Your task to perform on an android device: Open Google Chrome and open the bookmarks view Image 0: 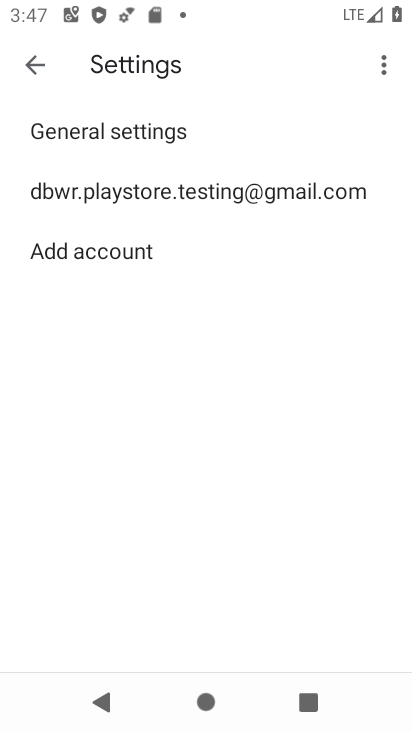
Step 0: press home button
Your task to perform on an android device: Open Google Chrome and open the bookmarks view Image 1: 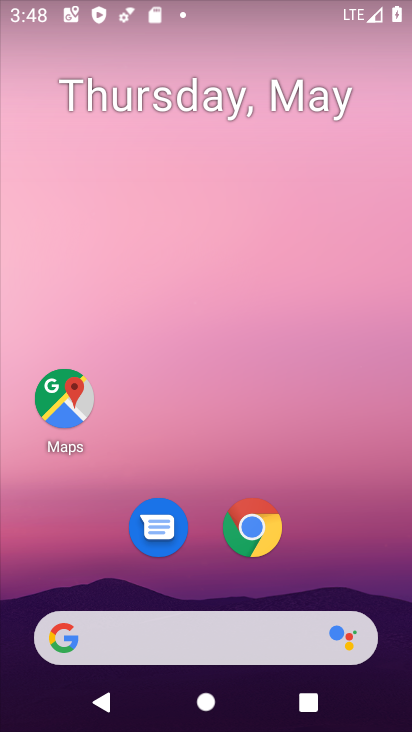
Step 1: click (254, 526)
Your task to perform on an android device: Open Google Chrome and open the bookmarks view Image 2: 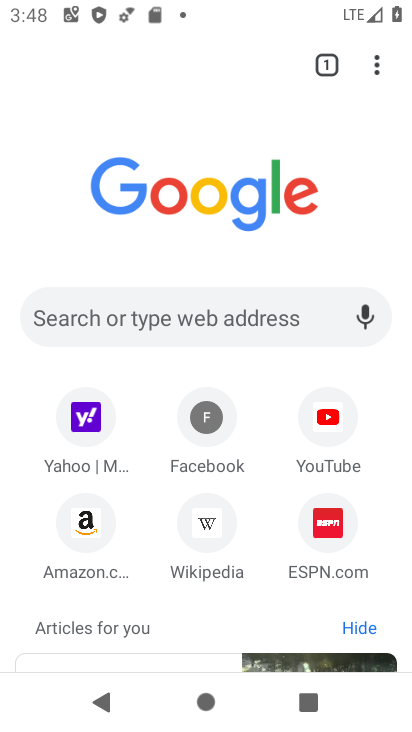
Step 2: click (374, 67)
Your task to perform on an android device: Open Google Chrome and open the bookmarks view Image 3: 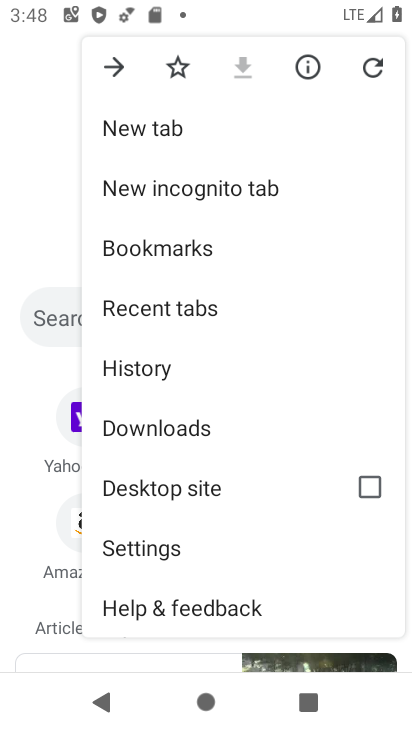
Step 3: click (171, 249)
Your task to perform on an android device: Open Google Chrome and open the bookmarks view Image 4: 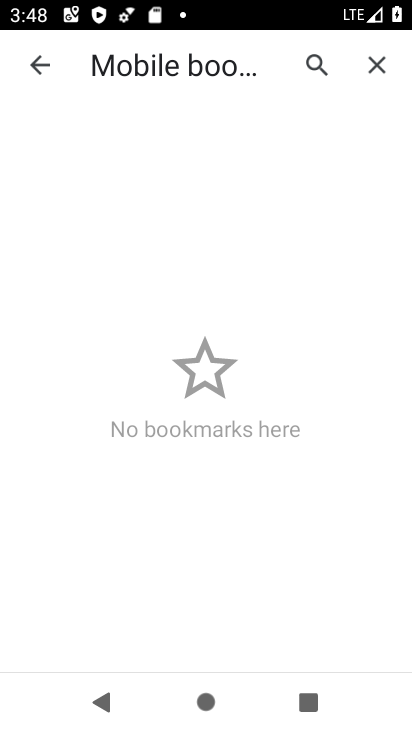
Step 4: task complete